Your task to perform on an android device: Open display settings Image 0: 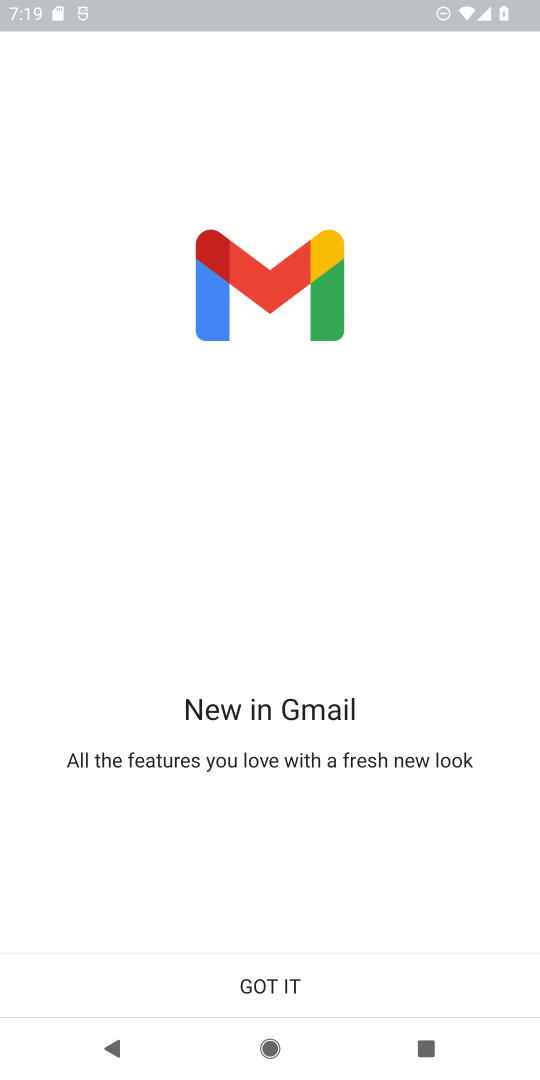
Step 0: press home button
Your task to perform on an android device: Open display settings Image 1: 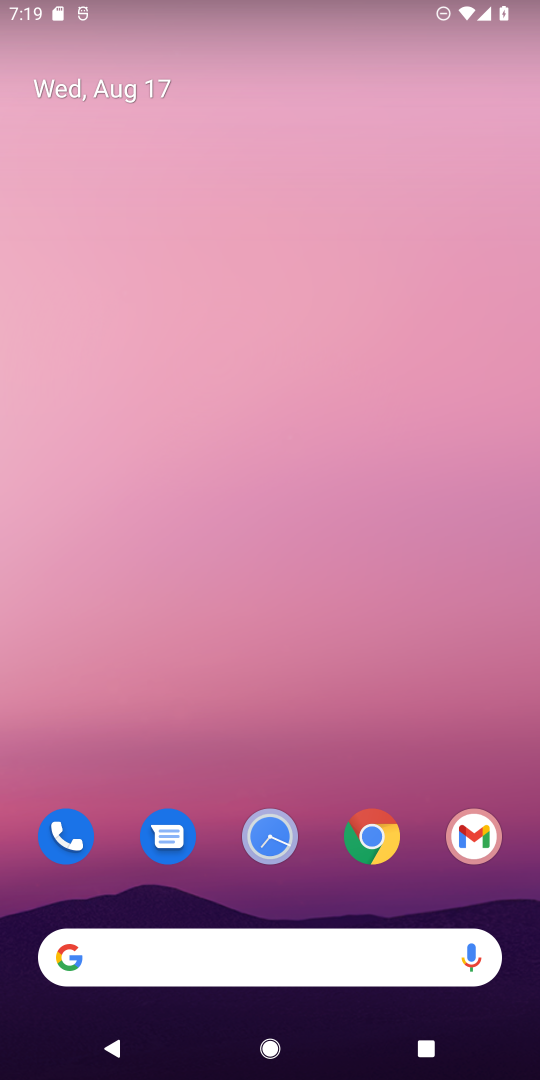
Step 1: drag from (258, 519) to (258, 309)
Your task to perform on an android device: Open display settings Image 2: 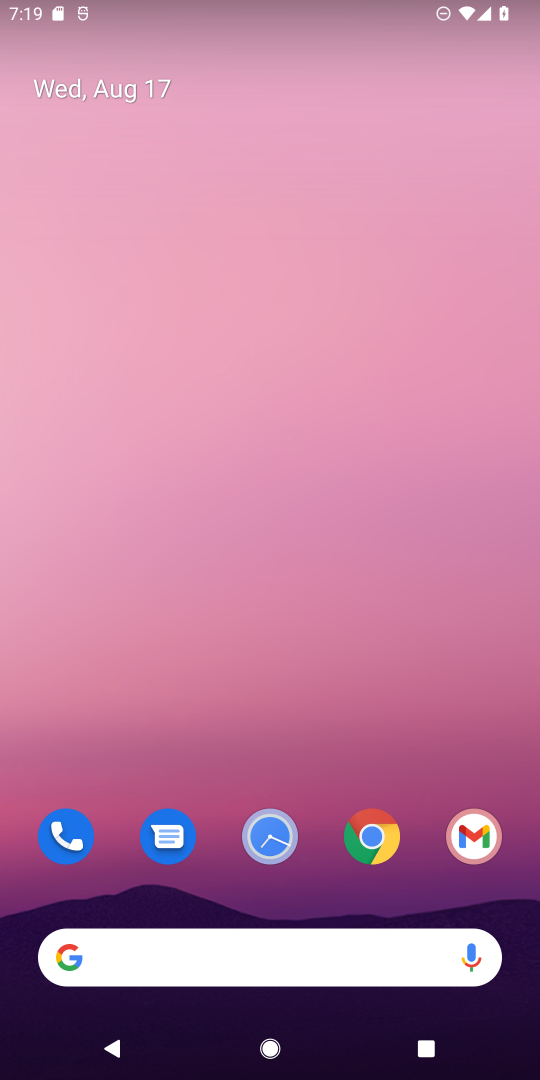
Step 2: drag from (242, 926) to (261, 242)
Your task to perform on an android device: Open display settings Image 3: 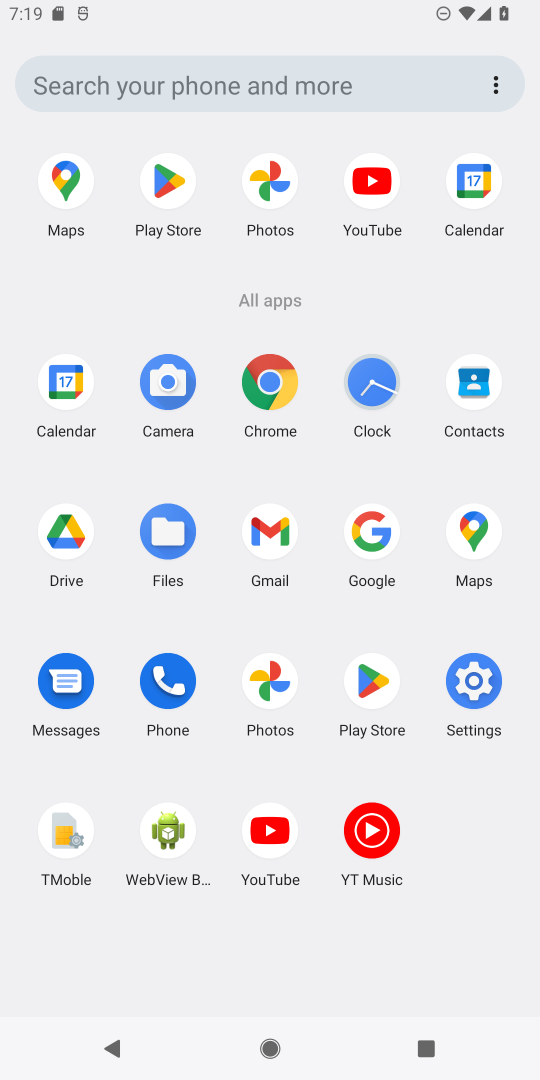
Step 3: click (486, 673)
Your task to perform on an android device: Open display settings Image 4: 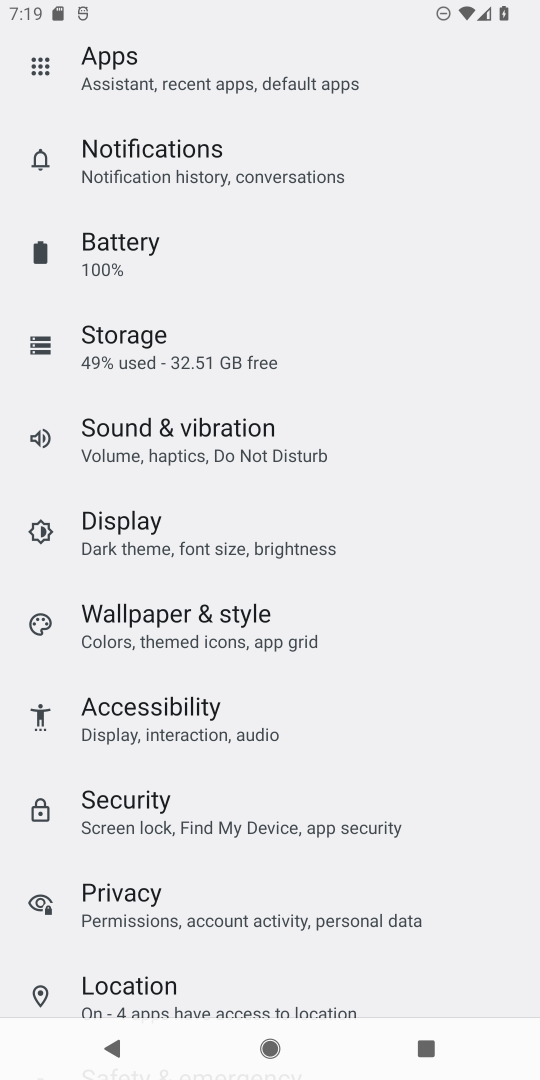
Step 4: click (155, 532)
Your task to perform on an android device: Open display settings Image 5: 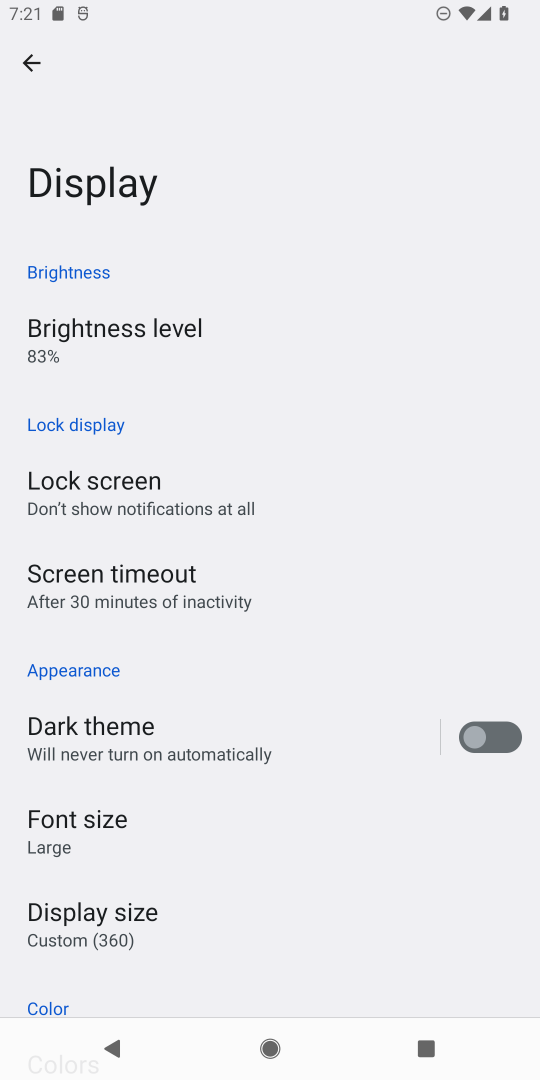
Step 5: task complete